Your task to perform on an android device: Show me productivity apps on the Play Store Image 0: 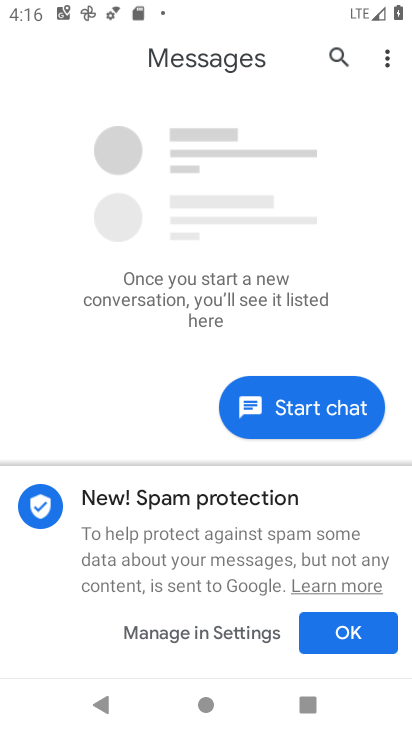
Step 0: press home button
Your task to perform on an android device: Show me productivity apps on the Play Store Image 1: 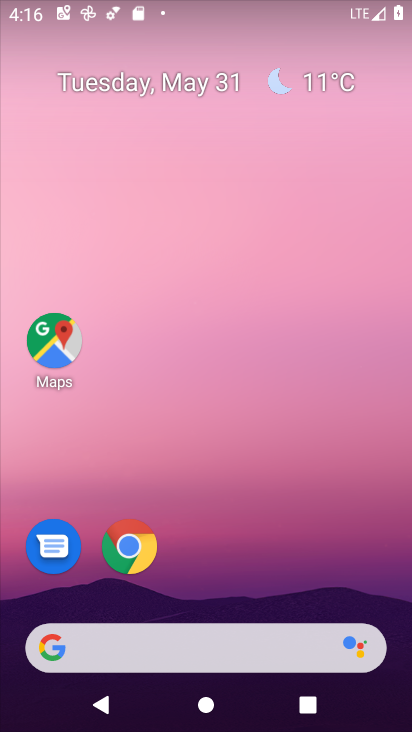
Step 1: drag from (232, 490) to (145, 19)
Your task to perform on an android device: Show me productivity apps on the Play Store Image 2: 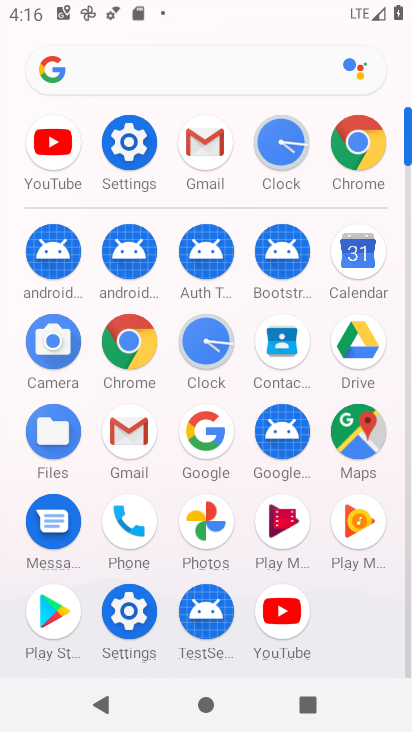
Step 2: click (67, 619)
Your task to perform on an android device: Show me productivity apps on the Play Store Image 3: 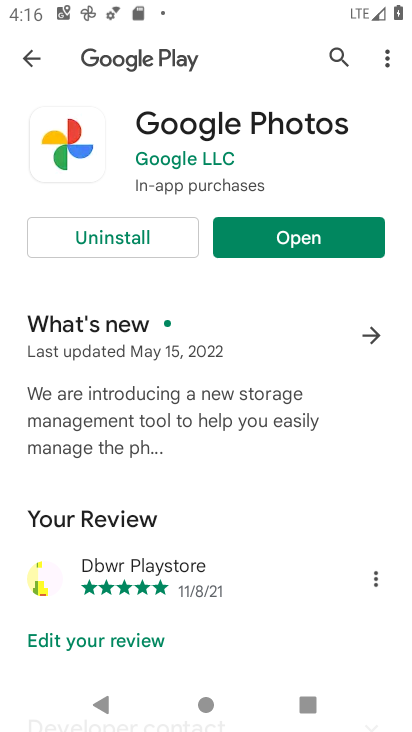
Step 3: click (36, 63)
Your task to perform on an android device: Show me productivity apps on the Play Store Image 4: 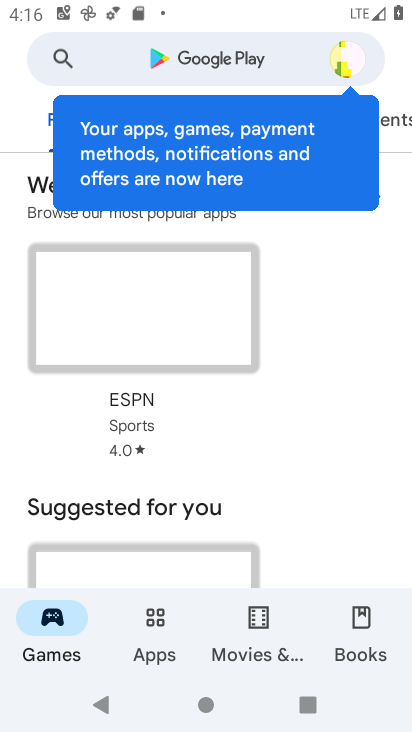
Step 4: click (145, 635)
Your task to perform on an android device: Show me productivity apps on the Play Store Image 5: 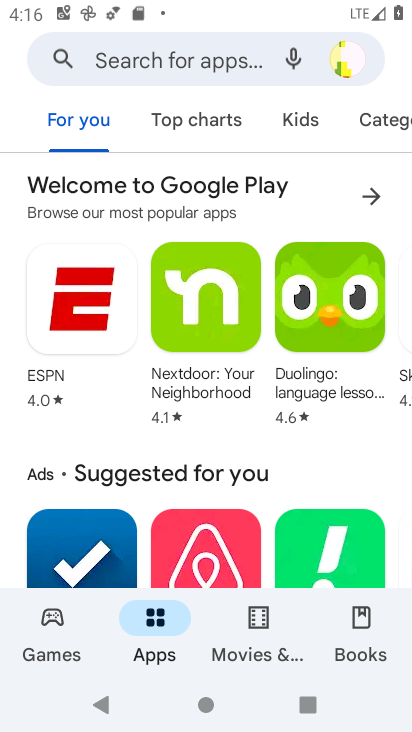
Step 5: click (164, 44)
Your task to perform on an android device: Show me productivity apps on the Play Store Image 6: 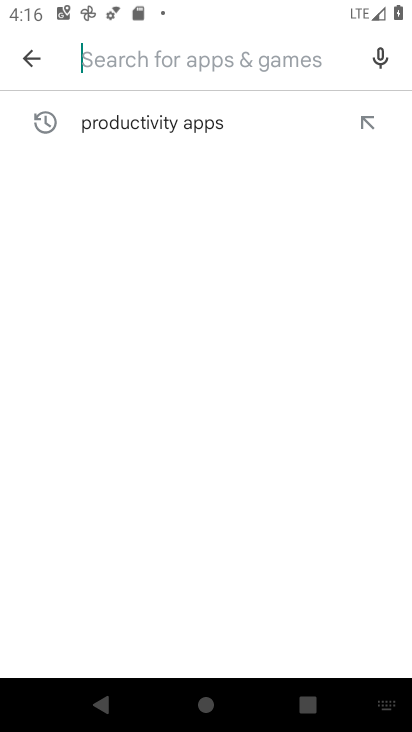
Step 6: click (117, 120)
Your task to perform on an android device: Show me productivity apps on the Play Store Image 7: 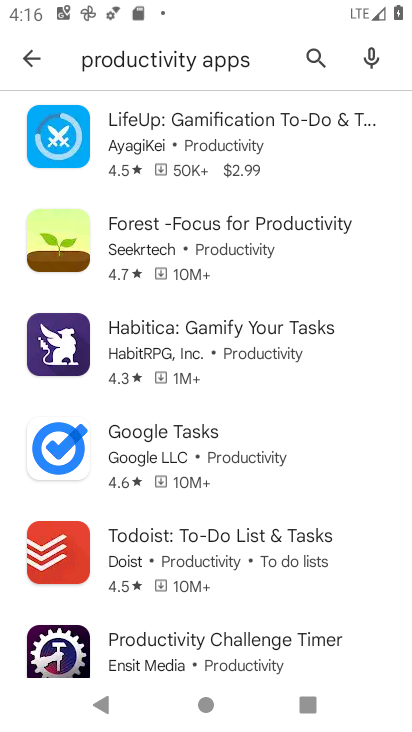
Step 7: task complete